Your task to perform on an android device: turn off translation in the chrome app Image 0: 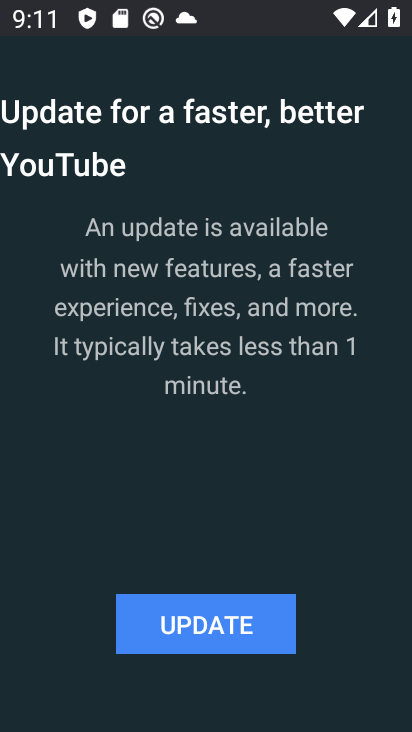
Step 0: press home button
Your task to perform on an android device: turn off translation in the chrome app Image 1: 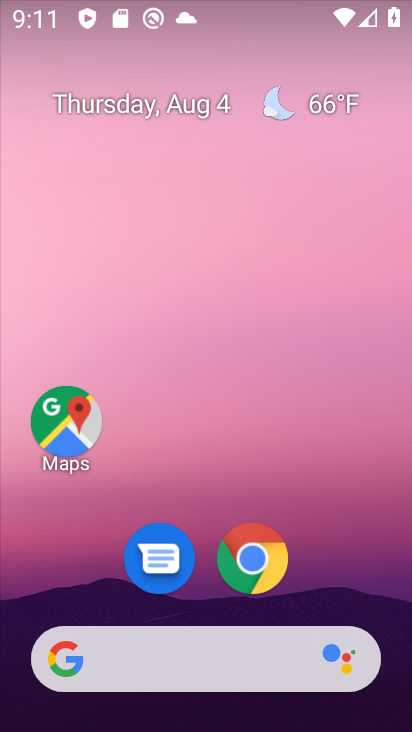
Step 1: drag from (312, 542) to (325, 47)
Your task to perform on an android device: turn off translation in the chrome app Image 2: 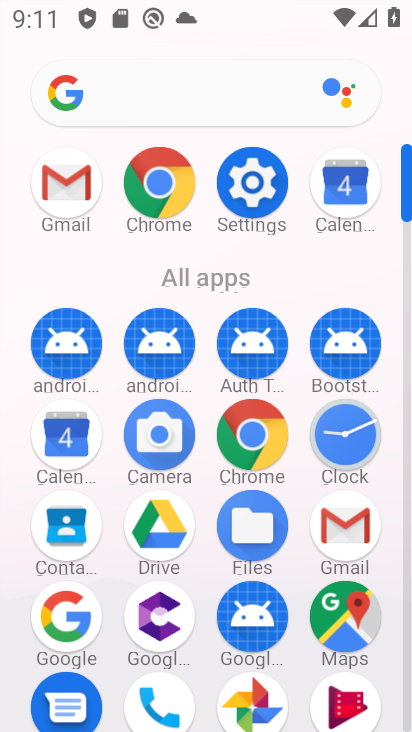
Step 2: click (245, 430)
Your task to perform on an android device: turn off translation in the chrome app Image 3: 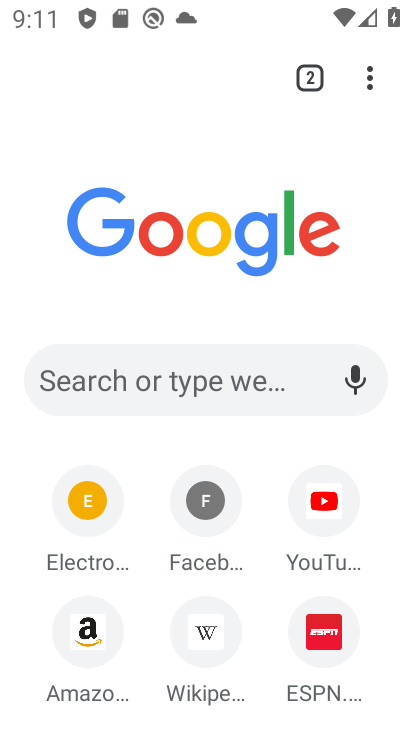
Step 3: drag from (381, 67) to (198, 610)
Your task to perform on an android device: turn off translation in the chrome app Image 4: 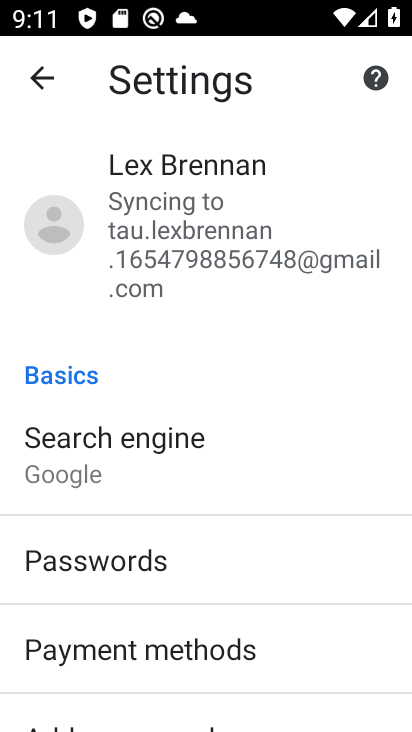
Step 4: drag from (333, 577) to (366, 89)
Your task to perform on an android device: turn off translation in the chrome app Image 5: 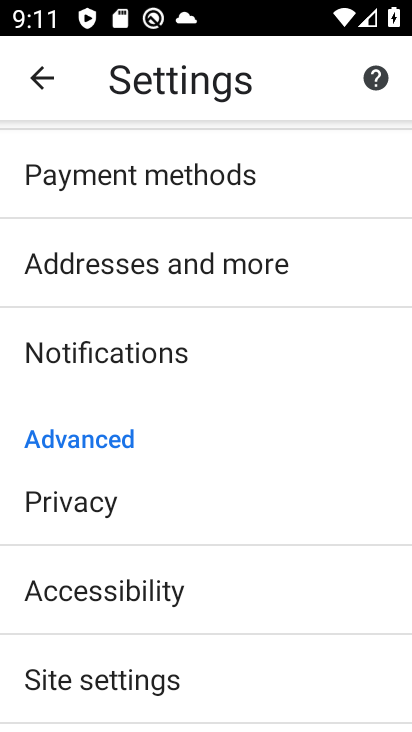
Step 5: drag from (301, 575) to (345, 234)
Your task to perform on an android device: turn off translation in the chrome app Image 6: 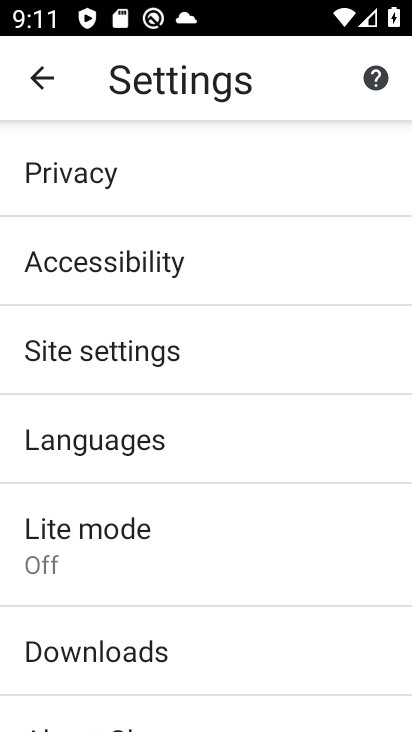
Step 6: drag from (111, 530) to (206, 270)
Your task to perform on an android device: turn off translation in the chrome app Image 7: 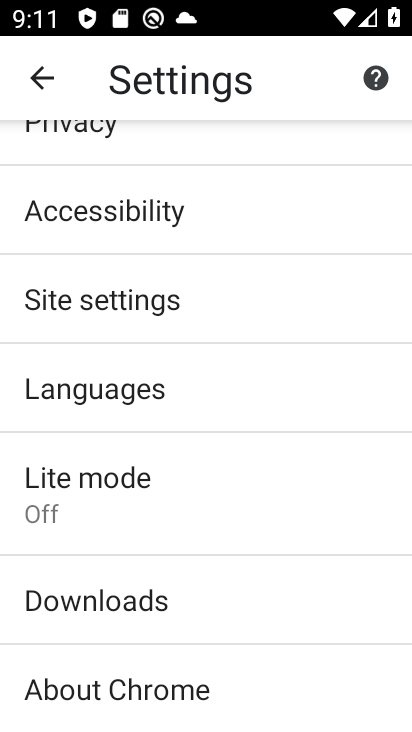
Step 7: click (93, 387)
Your task to perform on an android device: turn off translation in the chrome app Image 8: 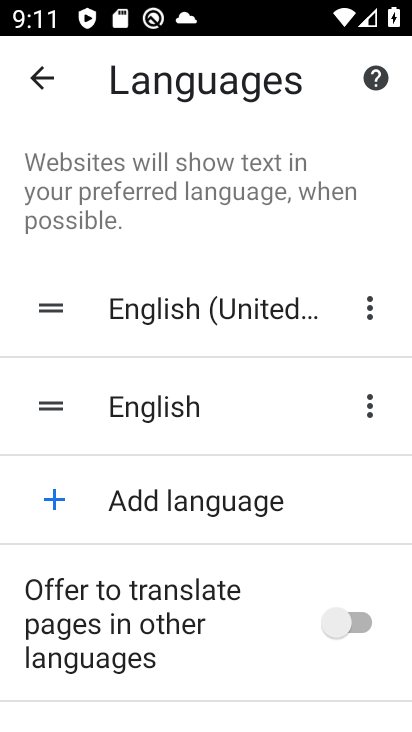
Step 8: task complete